Your task to perform on an android device: Toggle the flashlight Image 0: 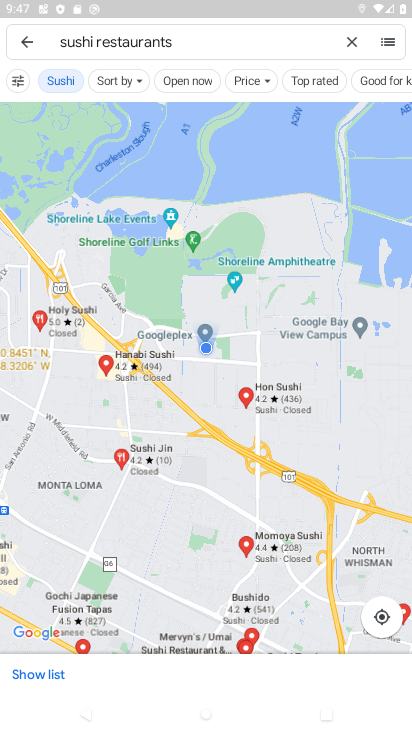
Step 0: press home button
Your task to perform on an android device: Toggle the flashlight Image 1: 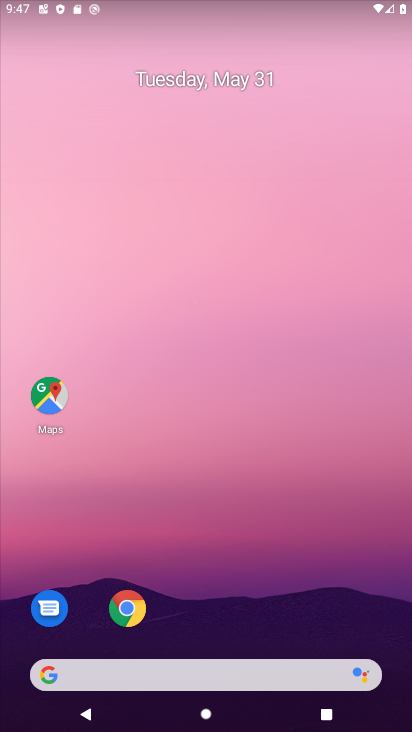
Step 1: drag from (231, 652) to (282, 43)
Your task to perform on an android device: Toggle the flashlight Image 2: 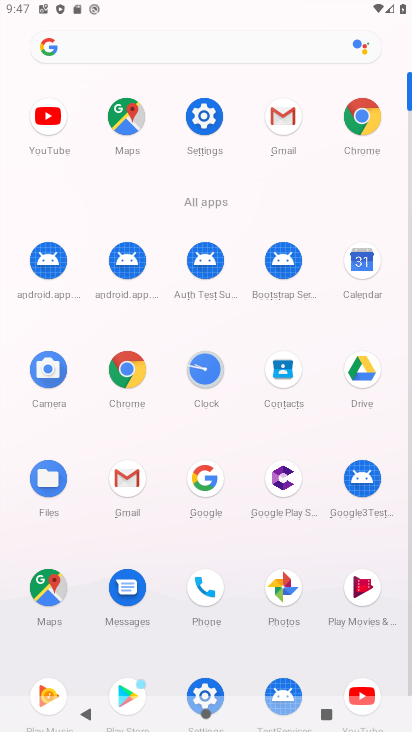
Step 2: click (204, 687)
Your task to perform on an android device: Toggle the flashlight Image 3: 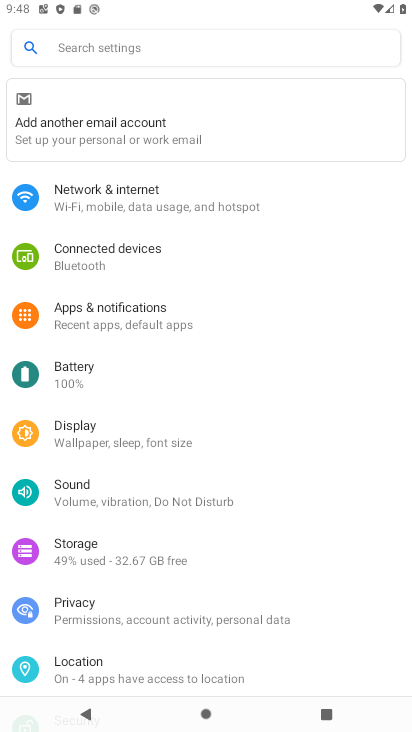
Step 3: click (127, 425)
Your task to perform on an android device: Toggle the flashlight Image 4: 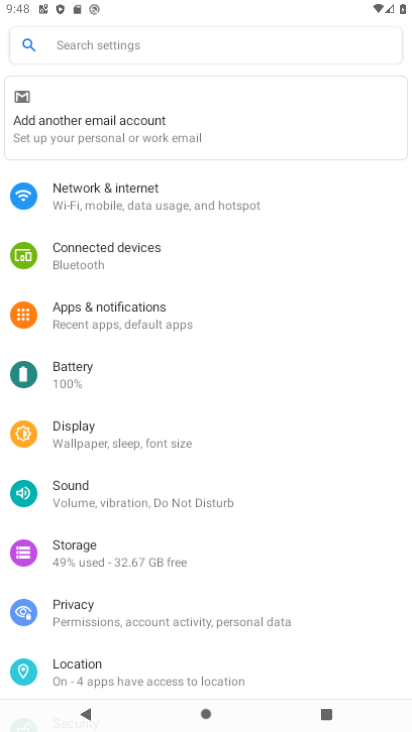
Step 4: task complete